Your task to perform on an android device: delete a single message in the gmail app Image 0: 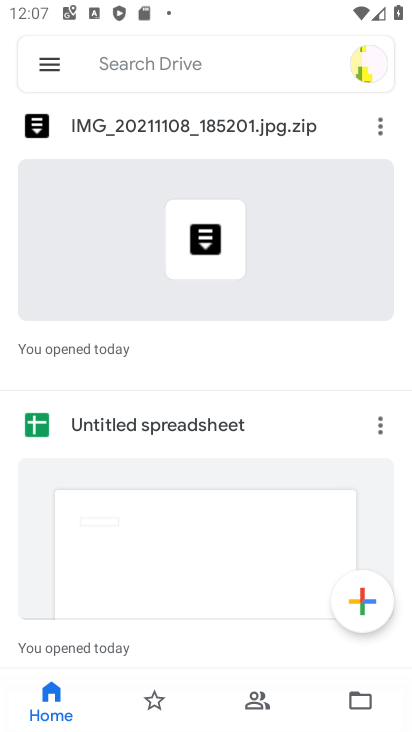
Step 0: press home button
Your task to perform on an android device: delete a single message in the gmail app Image 1: 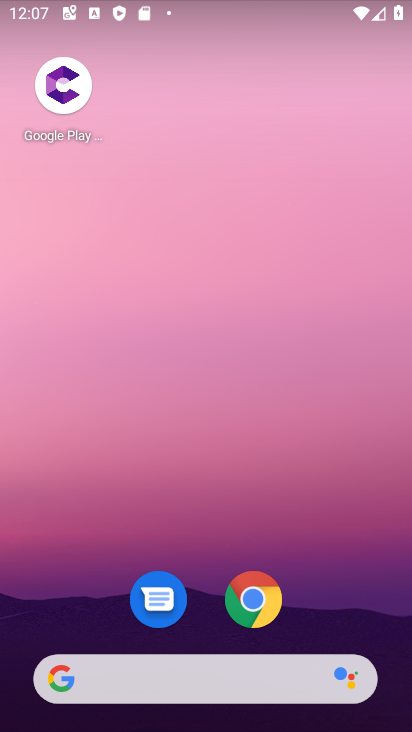
Step 1: drag from (188, 497) to (218, 36)
Your task to perform on an android device: delete a single message in the gmail app Image 2: 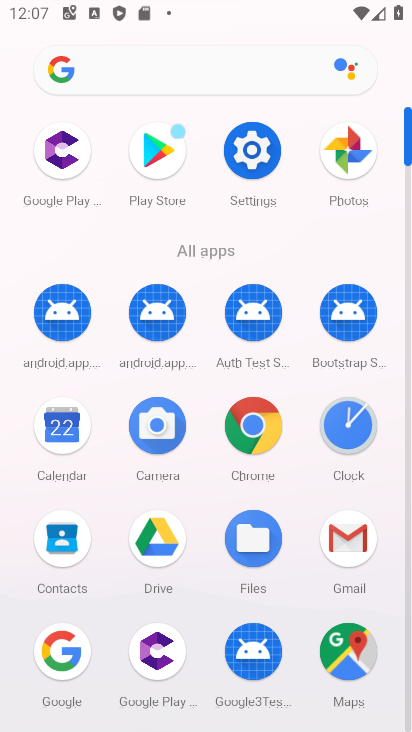
Step 2: click (347, 546)
Your task to perform on an android device: delete a single message in the gmail app Image 3: 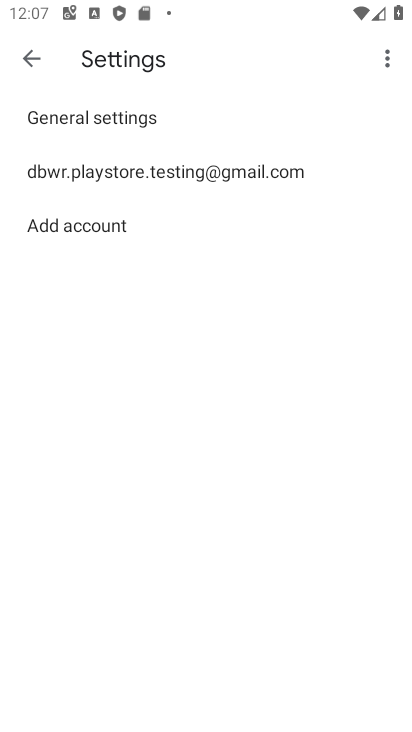
Step 3: click (162, 181)
Your task to perform on an android device: delete a single message in the gmail app Image 4: 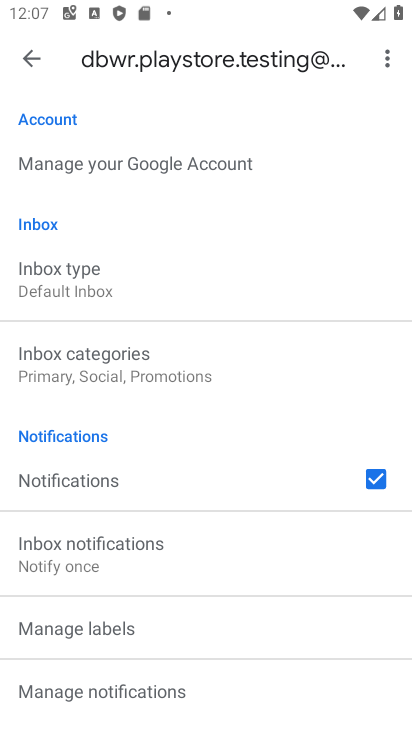
Step 4: click (26, 59)
Your task to perform on an android device: delete a single message in the gmail app Image 5: 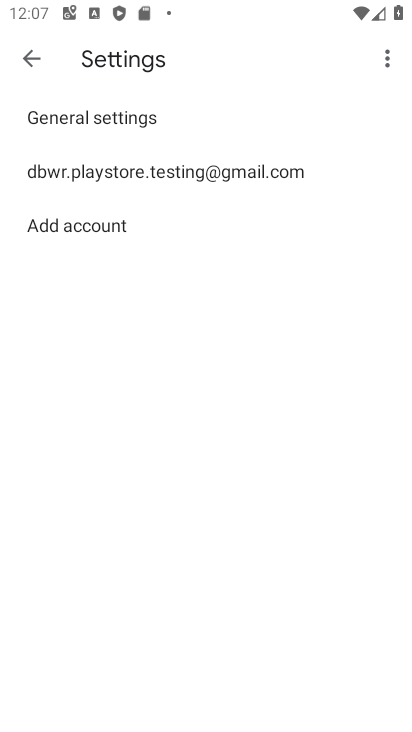
Step 5: click (26, 59)
Your task to perform on an android device: delete a single message in the gmail app Image 6: 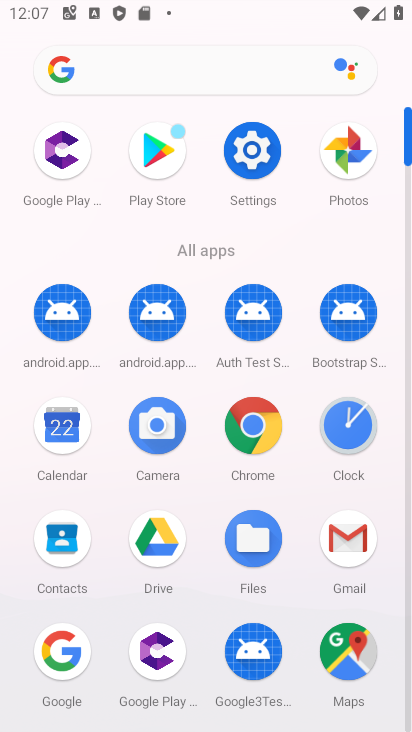
Step 6: click (337, 545)
Your task to perform on an android device: delete a single message in the gmail app Image 7: 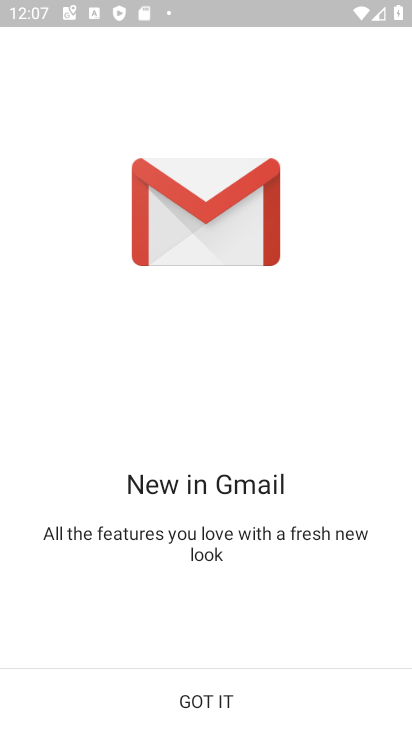
Step 7: click (214, 696)
Your task to perform on an android device: delete a single message in the gmail app Image 8: 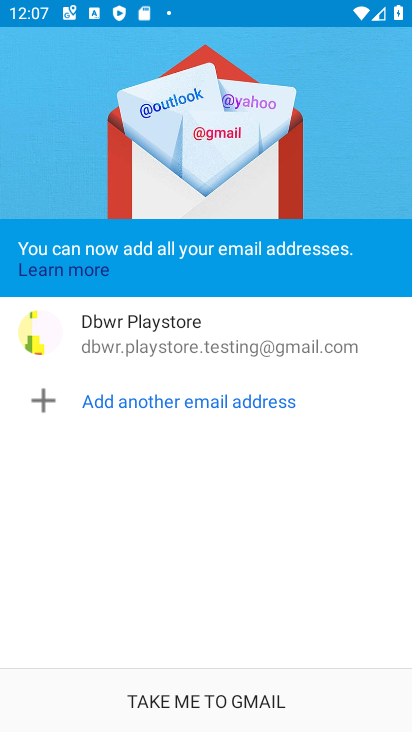
Step 8: click (207, 699)
Your task to perform on an android device: delete a single message in the gmail app Image 9: 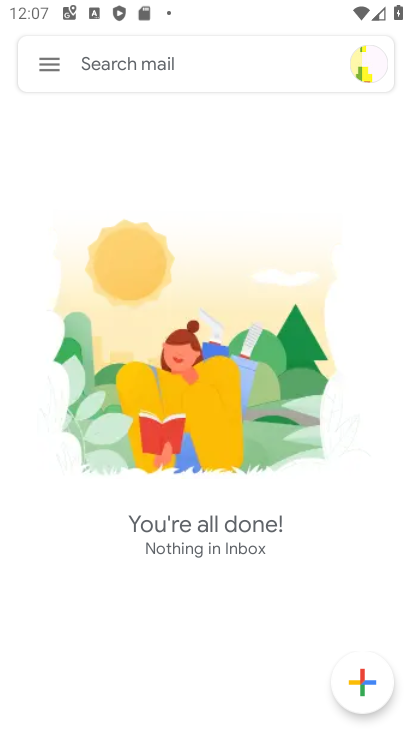
Step 9: click (55, 64)
Your task to perform on an android device: delete a single message in the gmail app Image 10: 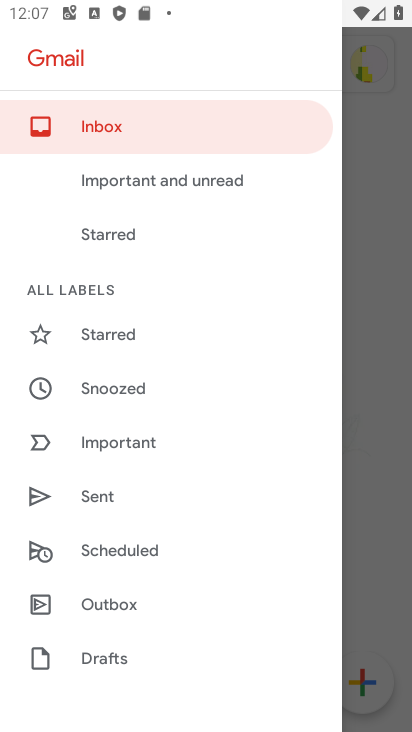
Step 10: task complete